Your task to perform on an android device: Open wifi settings Image 0: 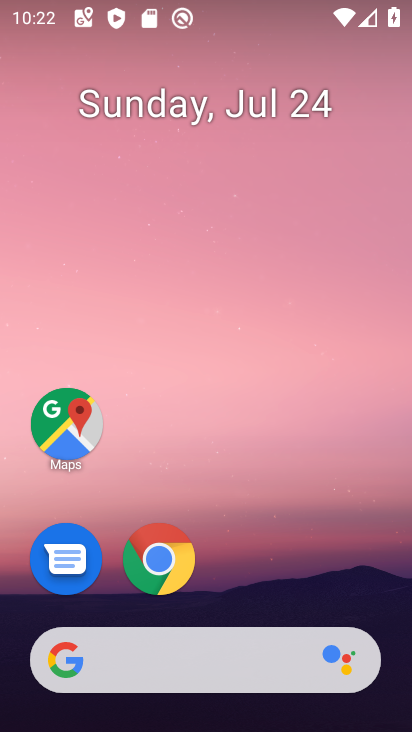
Step 0: drag from (177, 11) to (234, 599)
Your task to perform on an android device: Open wifi settings Image 1: 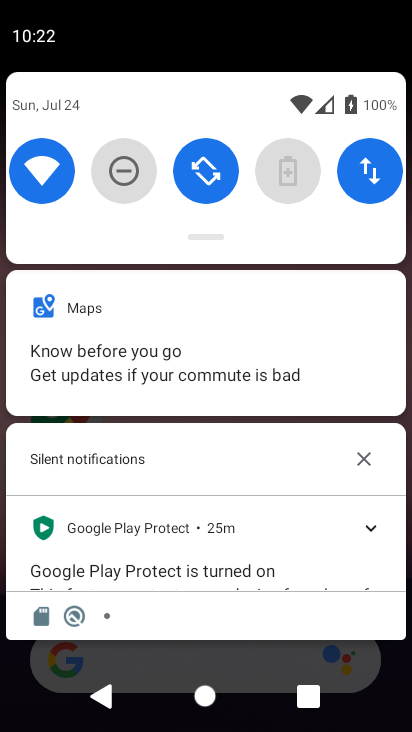
Step 1: click (54, 175)
Your task to perform on an android device: Open wifi settings Image 2: 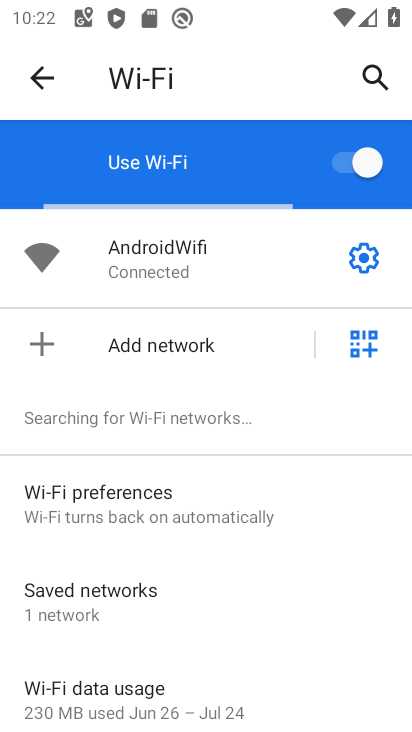
Step 2: task complete